Your task to perform on an android device: Search for flights from Barcelona to Mexico city Image 0: 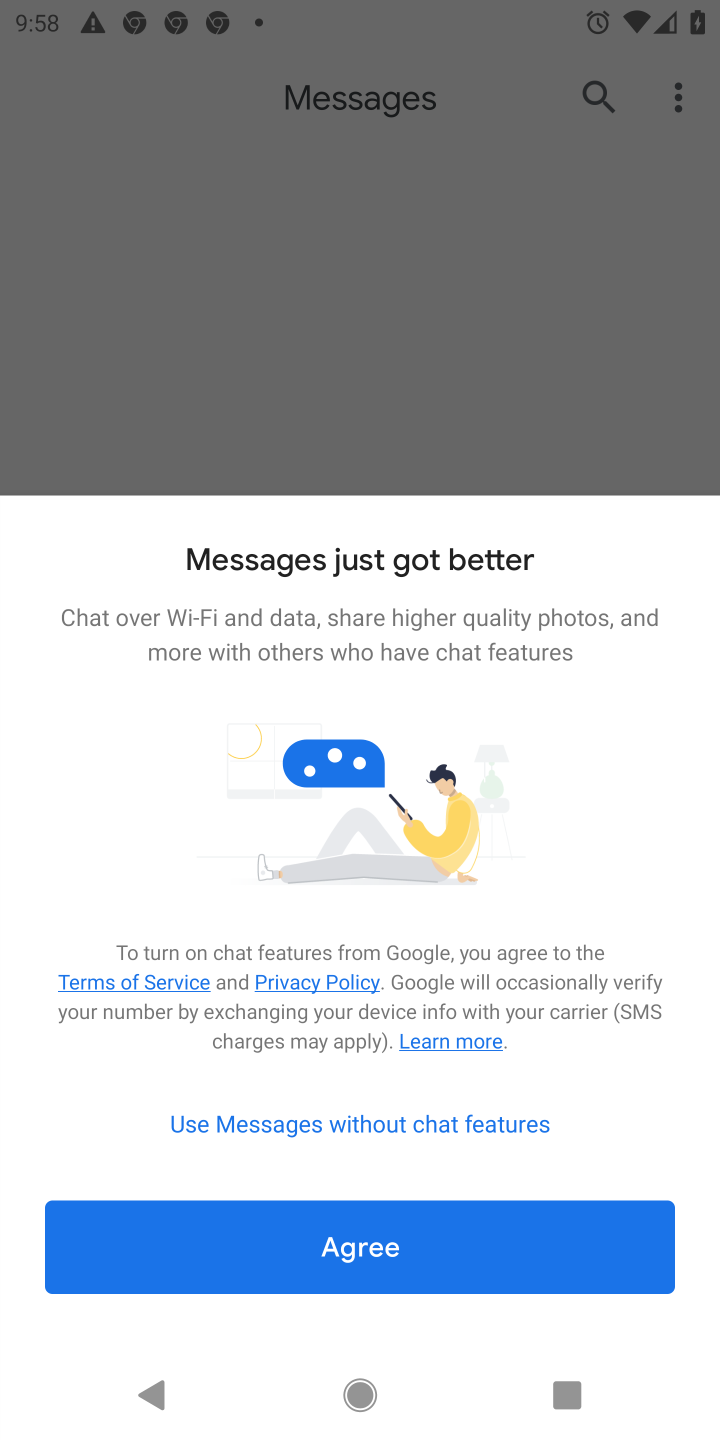
Step 0: press home button
Your task to perform on an android device: Search for flights from Barcelona to Mexico city Image 1: 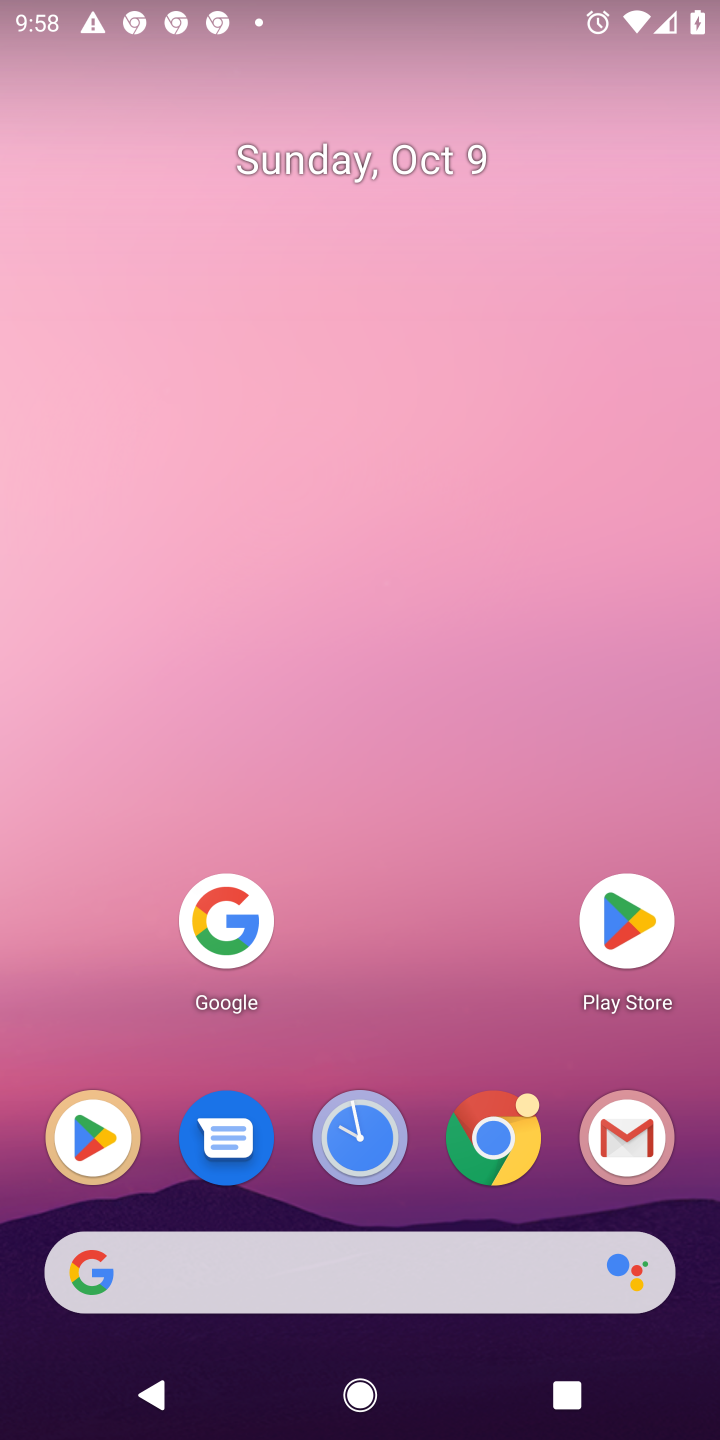
Step 1: click (223, 887)
Your task to perform on an android device: Search for flights from Barcelona to Mexico city Image 2: 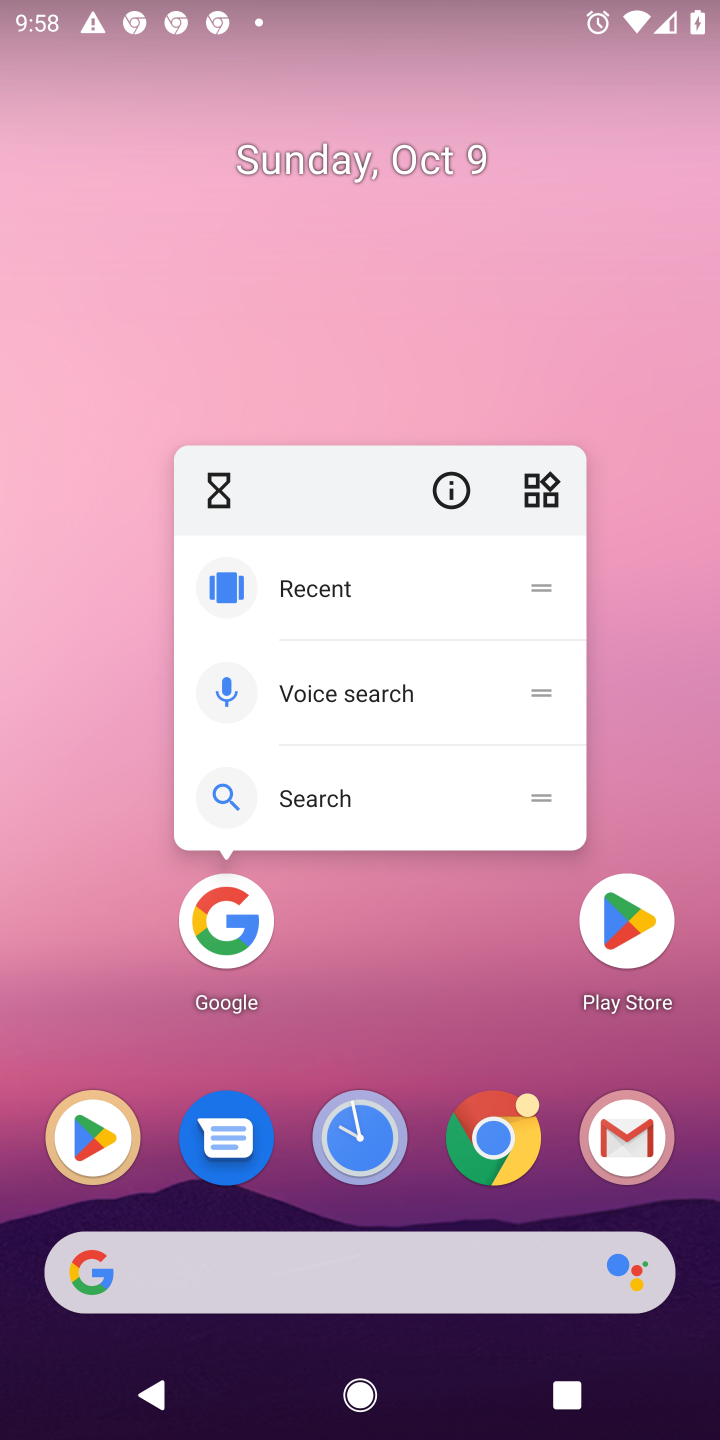
Step 2: click (223, 887)
Your task to perform on an android device: Search for flights from Barcelona to Mexico city Image 3: 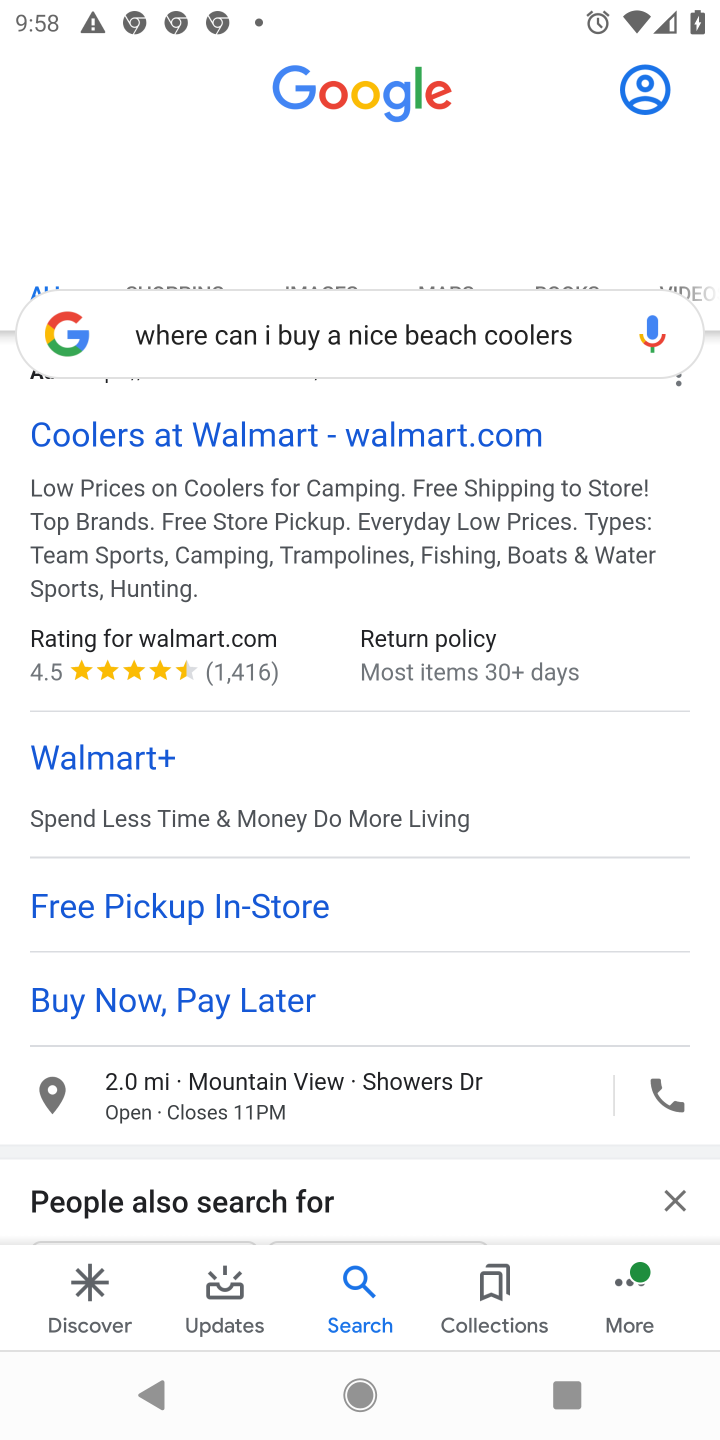
Step 3: click (527, 320)
Your task to perform on an android device: Search for flights from Barcelona to Mexico city Image 4: 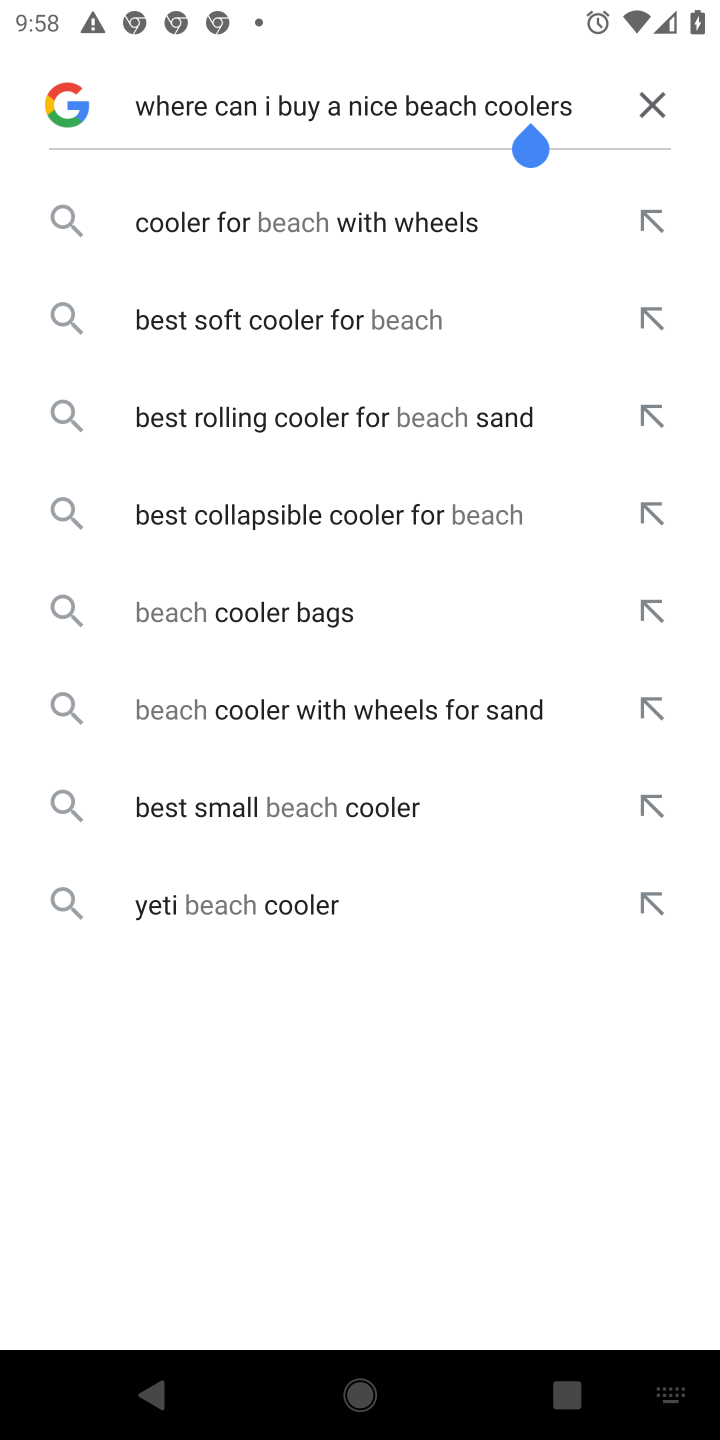
Step 4: click (653, 101)
Your task to perform on an android device: Search for flights from Barcelona to Mexico city Image 5: 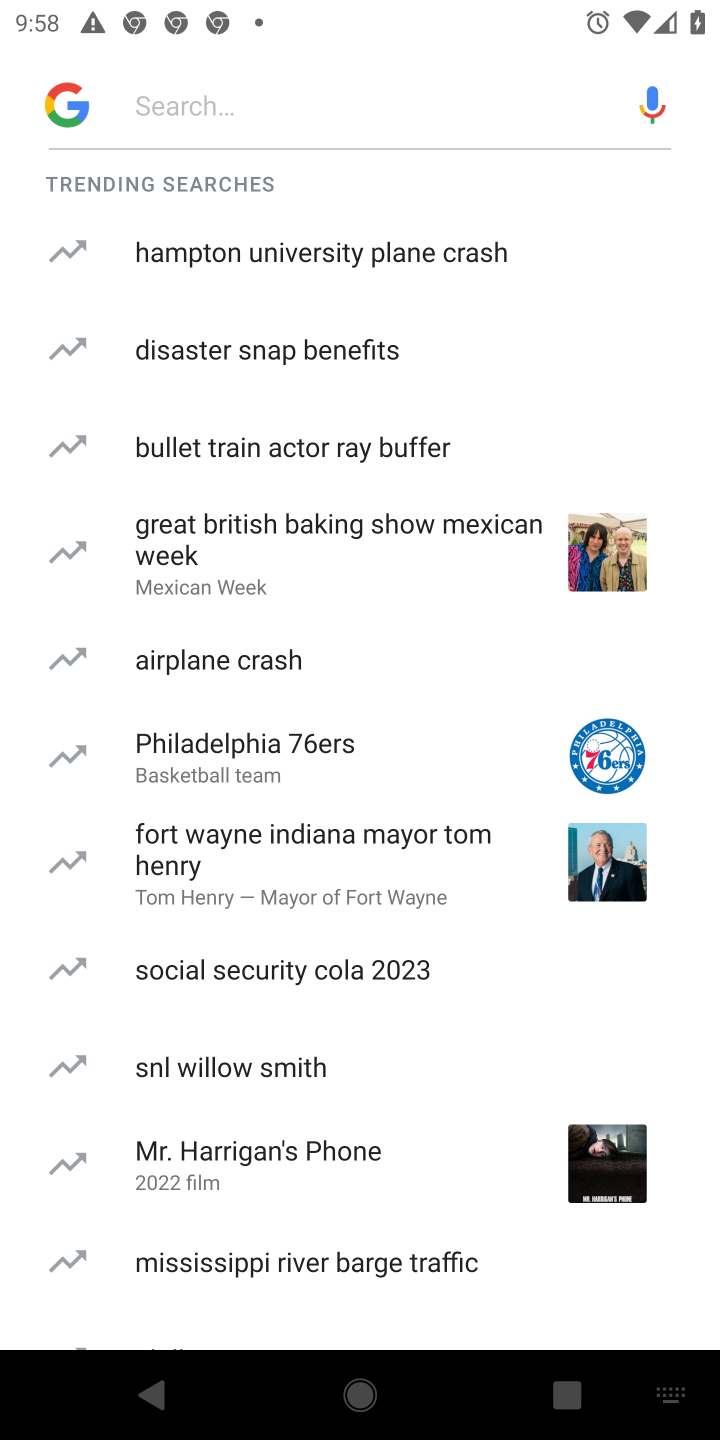
Step 5: click (268, 106)
Your task to perform on an android device: Search for flights from Barcelona to Mexico city Image 6: 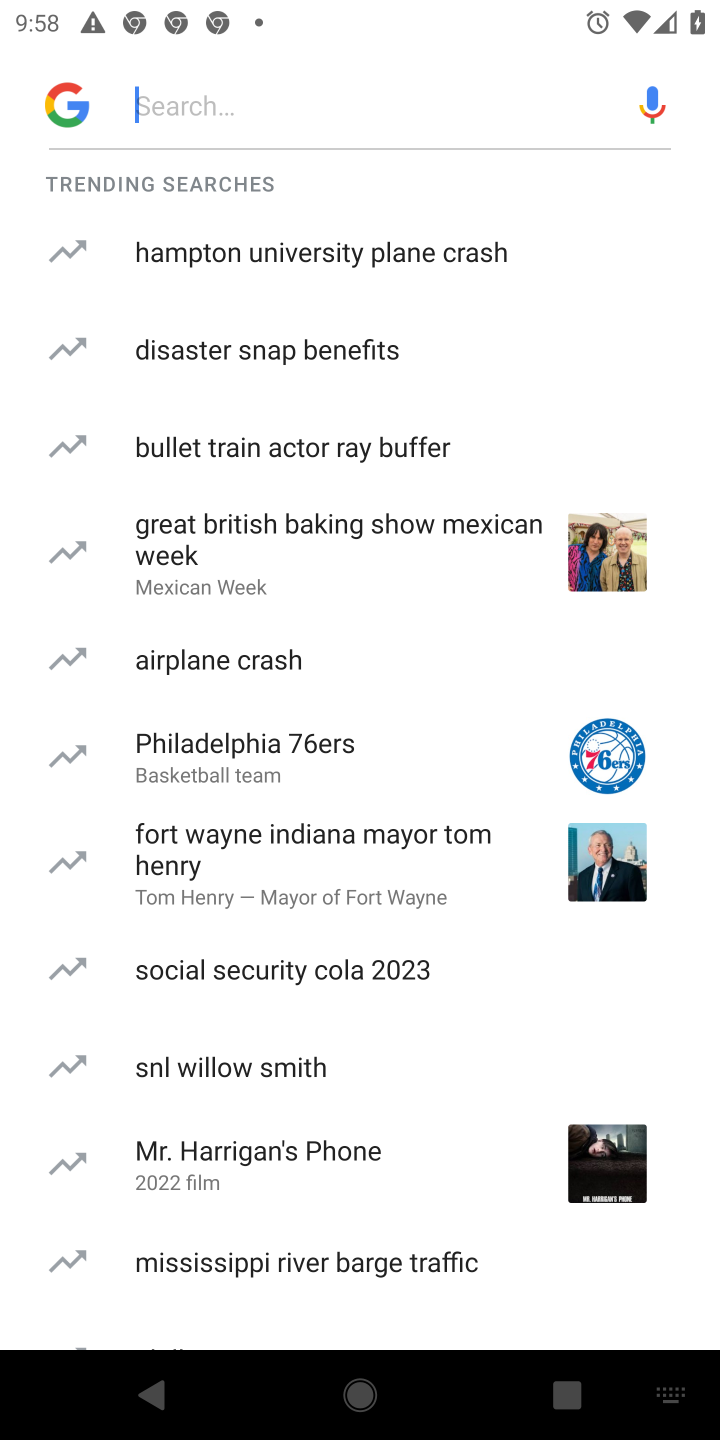
Step 6: type "Search for flights from Barcelona to Mexico city "
Your task to perform on an android device: Search for flights from Barcelona to Mexico city Image 7: 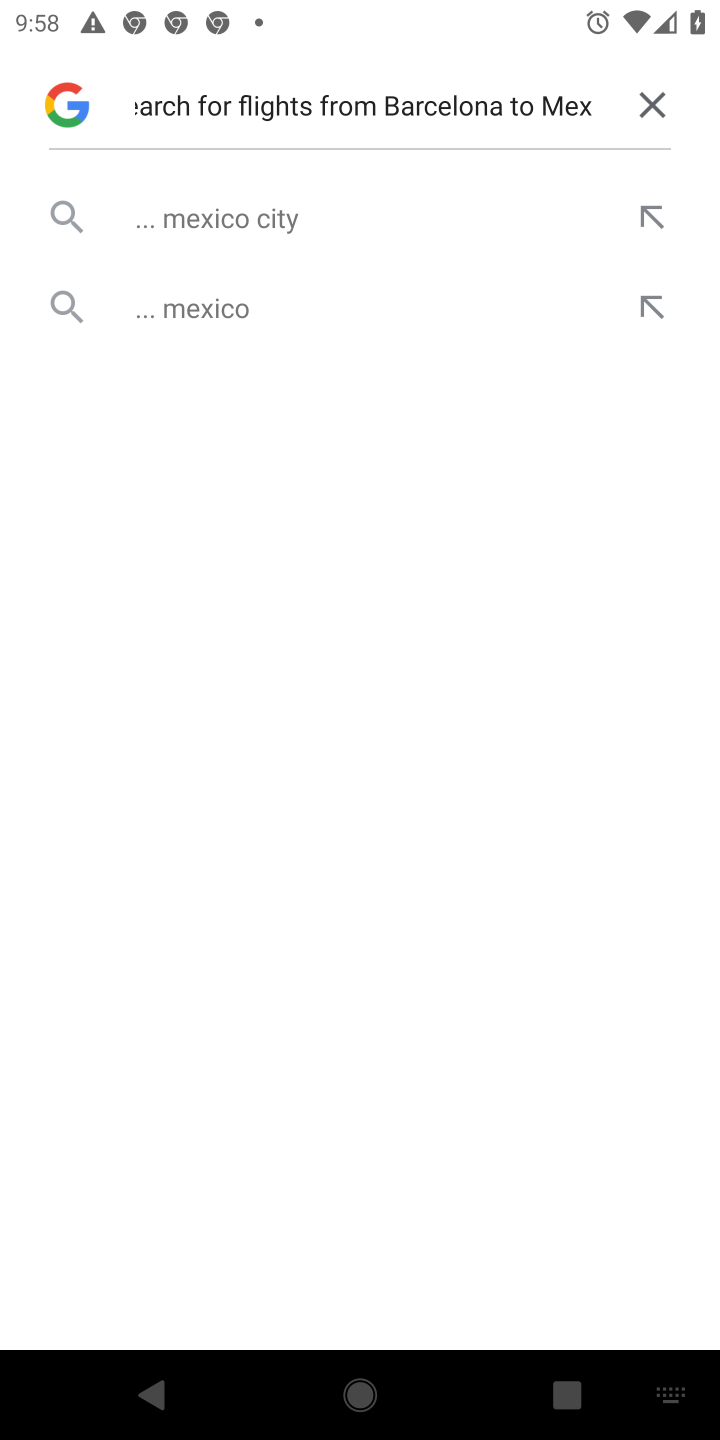
Step 7: click (270, 232)
Your task to perform on an android device: Search for flights from Barcelona to Mexico city Image 8: 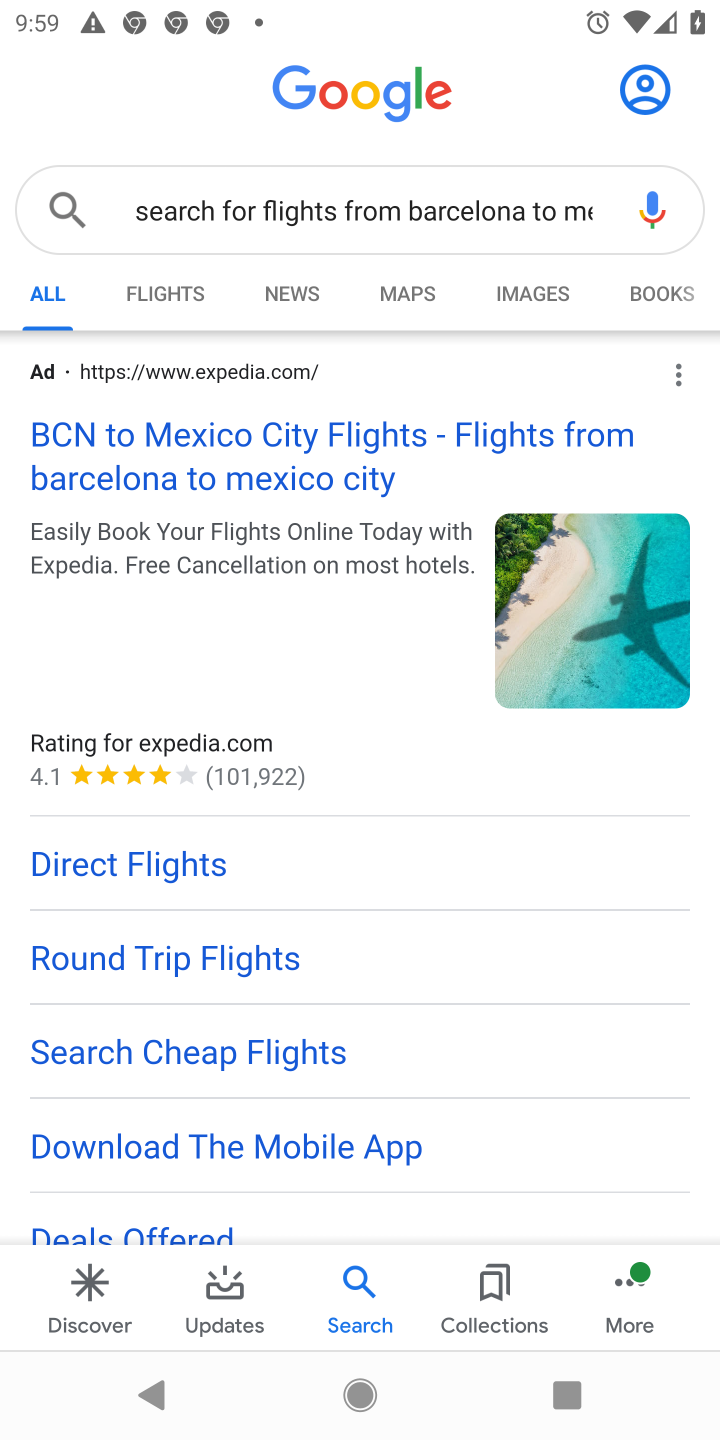
Step 8: click (308, 443)
Your task to perform on an android device: Search for flights from Barcelona to Mexico city Image 9: 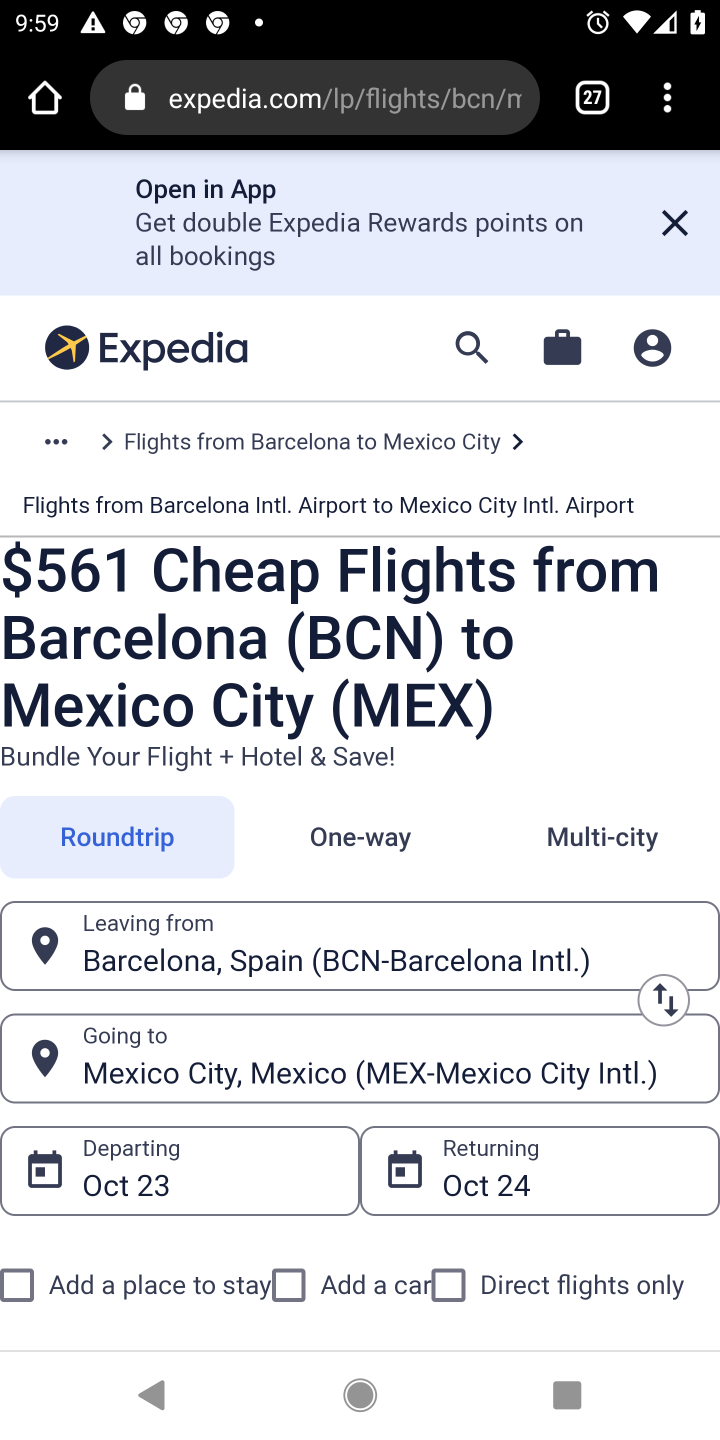
Step 9: task complete